Your task to perform on an android device: Open the map Image 0: 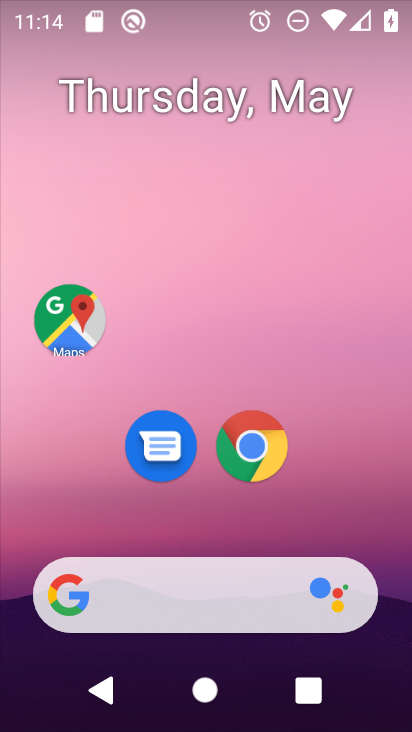
Step 0: drag from (280, 643) to (280, 183)
Your task to perform on an android device: Open the map Image 1: 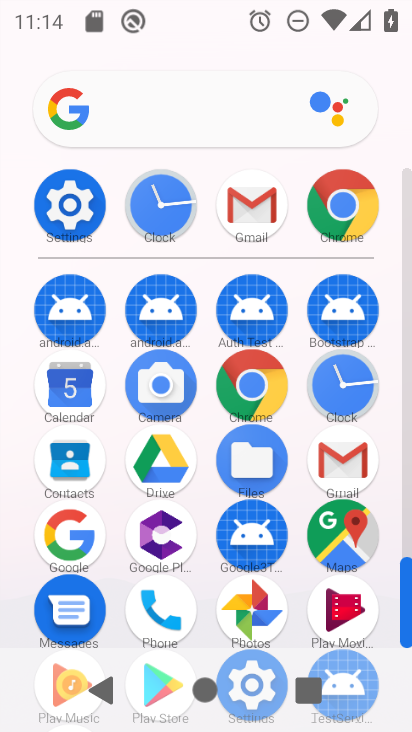
Step 1: click (343, 527)
Your task to perform on an android device: Open the map Image 2: 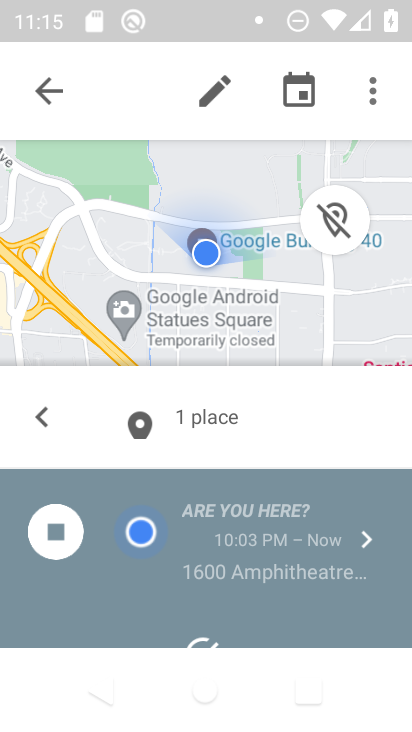
Step 2: click (34, 91)
Your task to perform on an android device: Open the map Image 3: 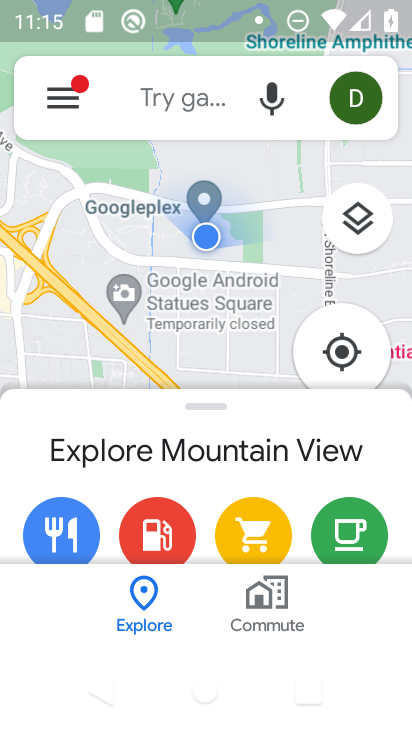
Step 3: click (237, 287)
Your task to perform on an android device: Open the map Image 4: 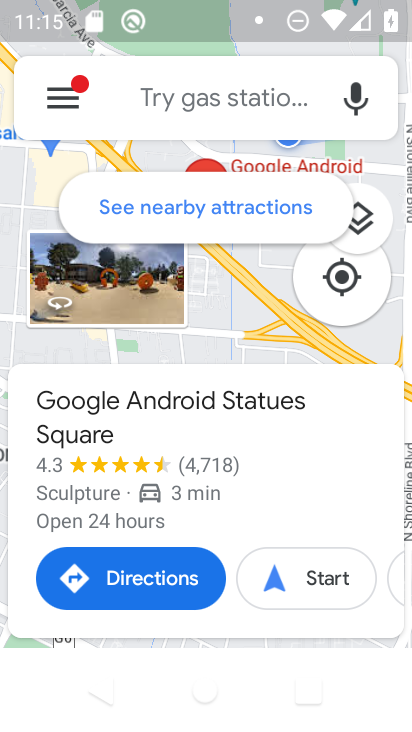
Step 4: click (181, 291)
Your task to perform on an android device: Open the map Image 5: 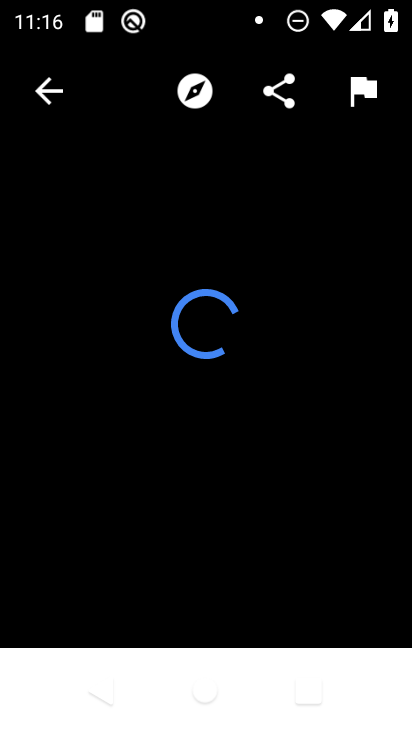
Step 5: task complete